Your task to perform on an android device: open wifi settings Image 0: 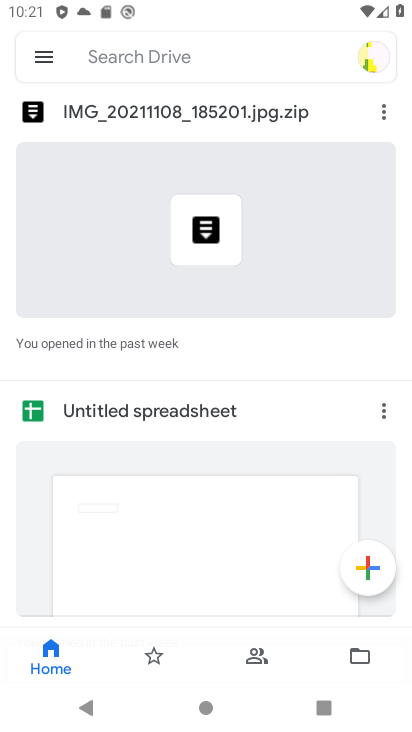
Step 0: press home button
Your task to perform on an android device: open wifi settings Image 1: 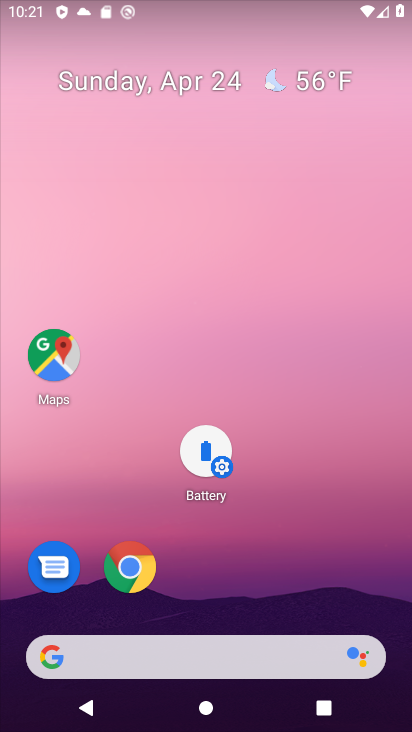
Step 1: drag from (11, 725) to (291, 139)
Your task to perform on an android device: open wifi settings Image 2: 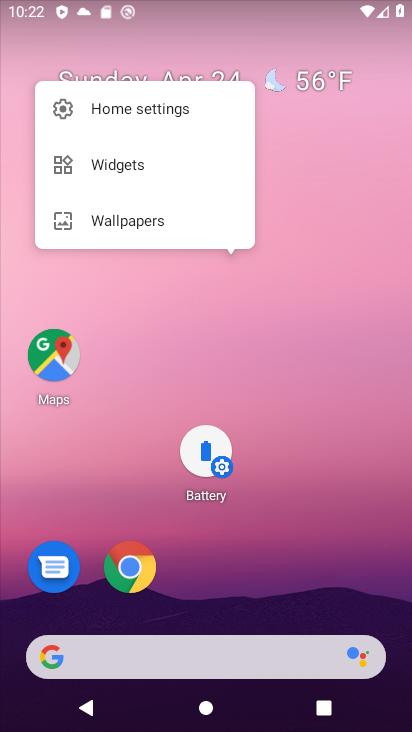
Step 2: click (321, 396)
Your task to perform on an android device: open wifi settings Image 3: 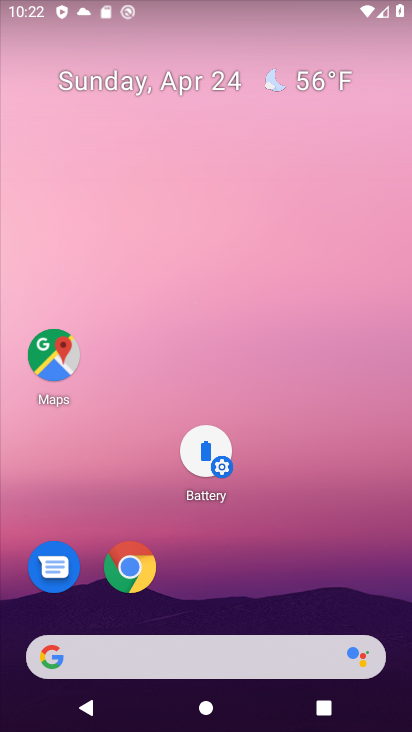
Step 3: drag from (165, 477) to (399, 135)
Your task to perform on an android device: open wifi settings Image 4: 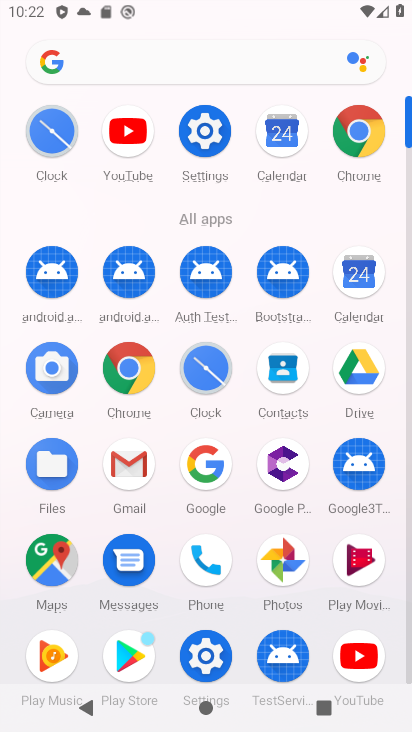
Step 4: click (201, 139)
Your task to perform on an android device: open wifi settings Image 5: 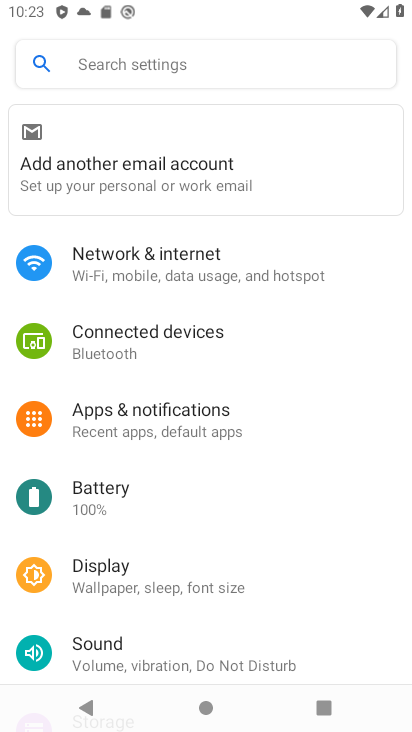
Step 5: click (149, 236)
Your task to perform on an android device: open wifi settings Image 6: 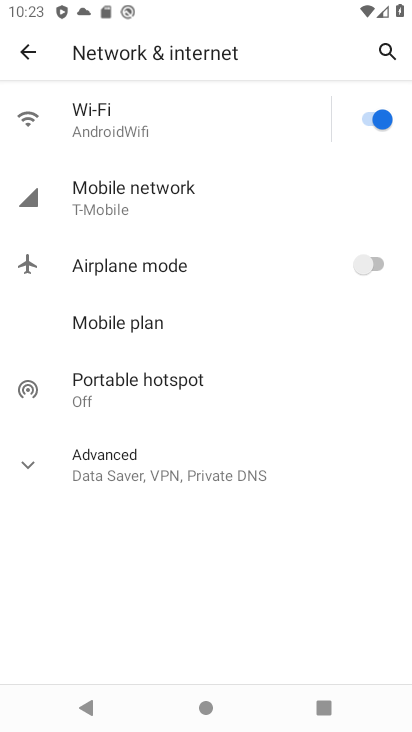
Step 6: click (169, 118)
Your task to perform on an android device: open wifi settings Image 7: 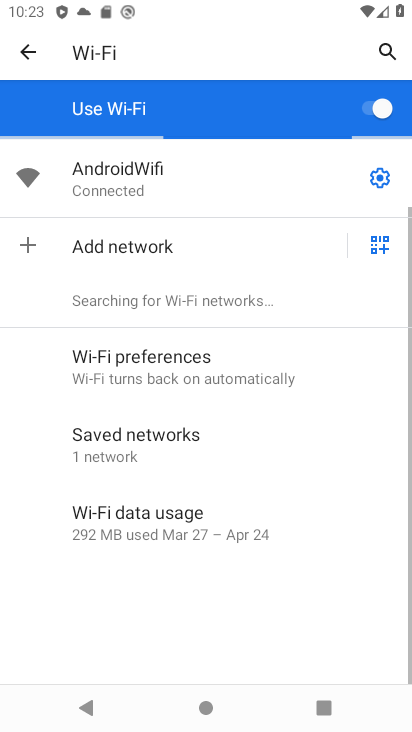
Step 7: click (374, 174)
Your task to perform on an android device: open wifi settings Image 8: 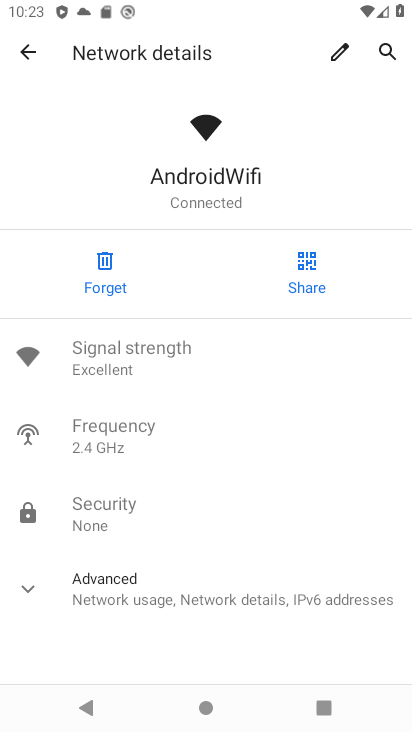
Step 8: task complete